Your task to perform on an android device: clear history in the chrome app Image 0: 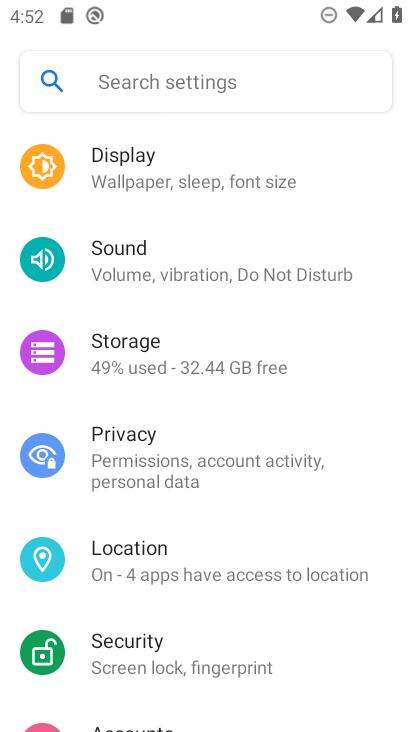
Step 0: press home button
Your task to perform on an android device: clear history in the chrome app Image 1: 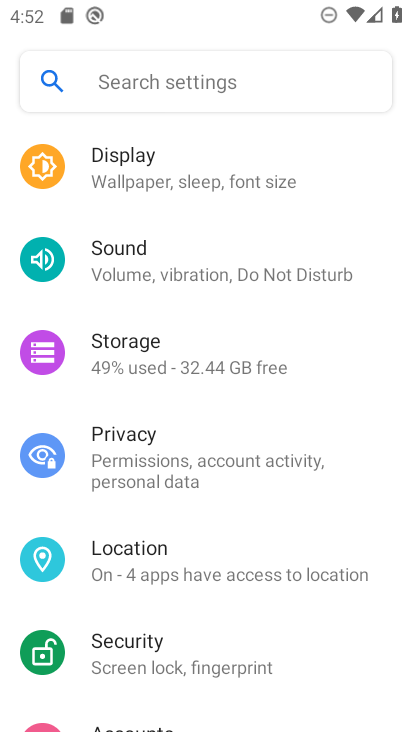
Step 1: press home button
Your task to perform on an android device: clear history in the chrome app Image 2: 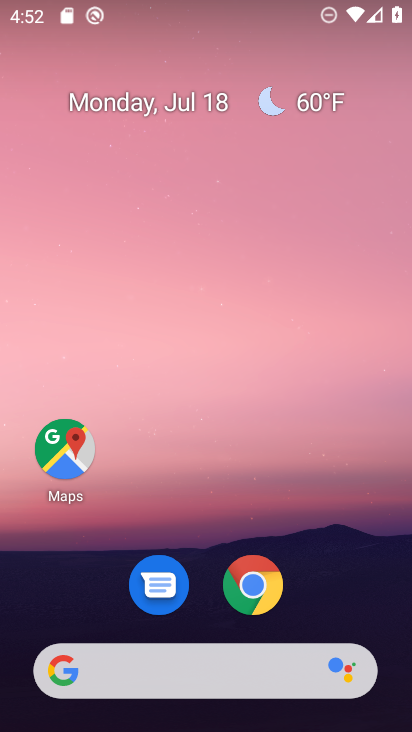
Step 2: click (257, 580)
Your task to perform on an android device: clear history in the chrome app Image 3: 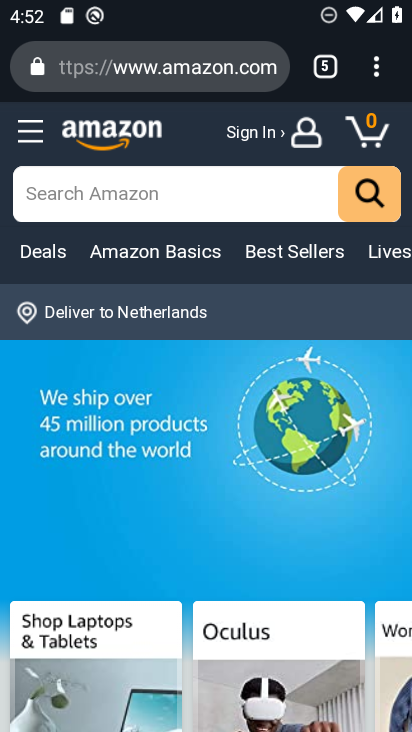
Step 3: click (382, 76)
Your task to perform on an android device: clear history in the chrome app Image 4: 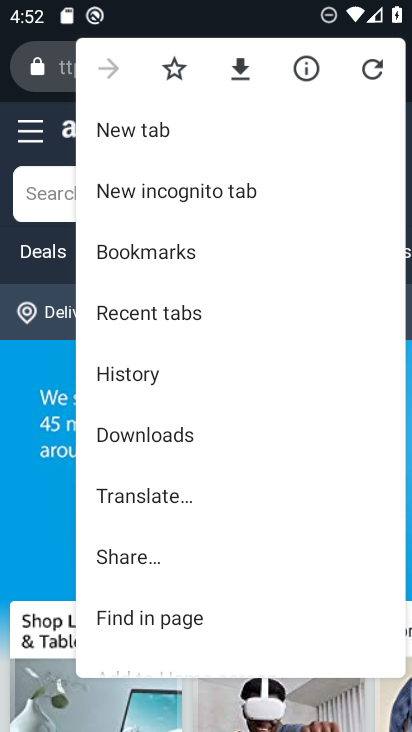
Step 4: drag from (256, 503) to (272, 157)
Your task to perform on an android device: clear history in the chrome app Image 5: 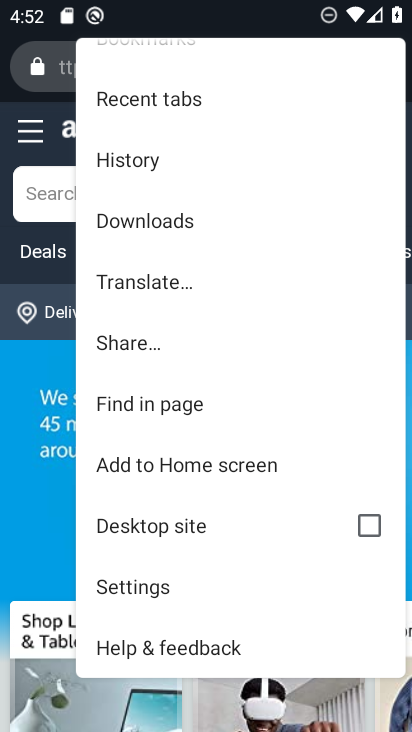
Step 5: click (139, 579)
Your task to perform on an android device: clear history in the chrome app Image 6: 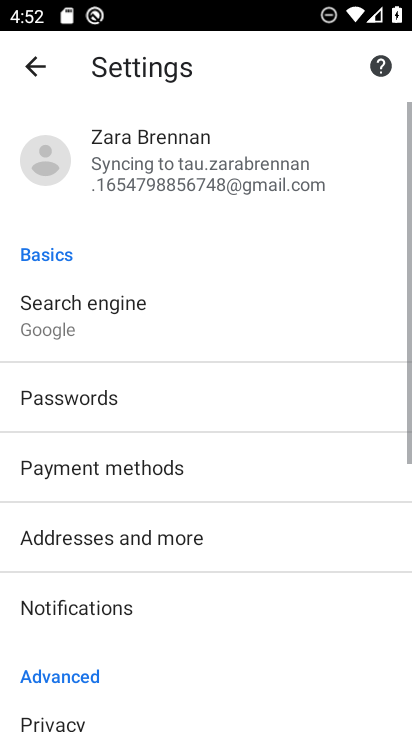
Step 6: drag from (256, 587) to (270, 294)
Your task to perform on an android device: clear history in the chrome app Image 7: 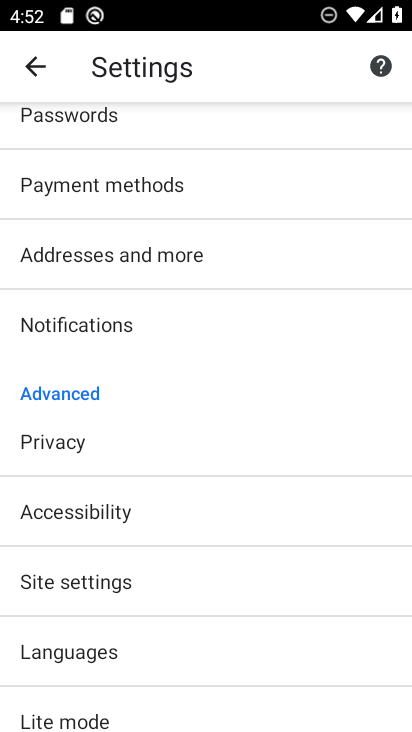
Step 7: click (91, 449)
Your task to perform on an android device: clear history in the chrome app Image 8: 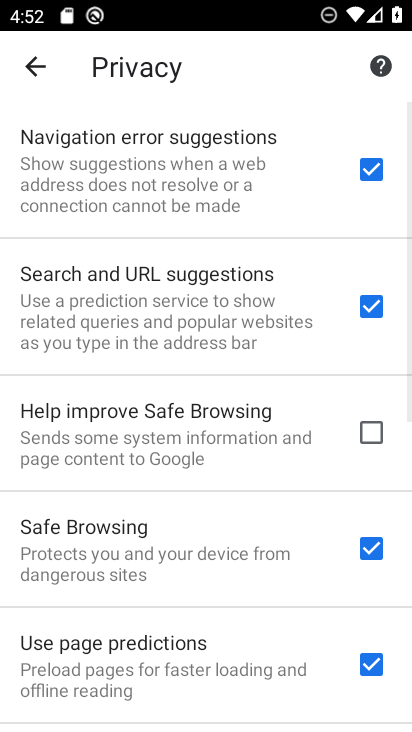
Step 8: drag from (211, 592) to (246, 148)
Your task to perform on an android device: clear history in the chrome app Image 9: 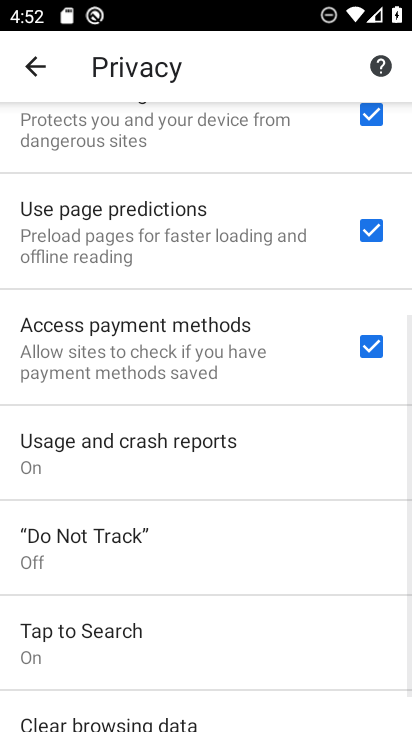
Step 9: drag from (257, 543) to (275, 183)
Your task to perform on an android device: clear history in the chrome app Image 10: 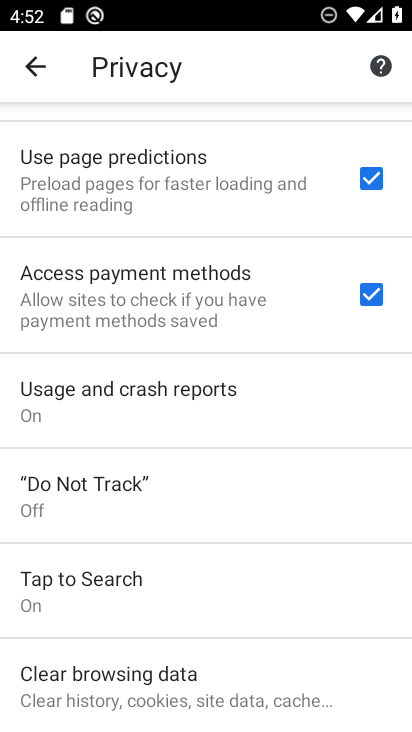
Step 10: click (130, 684)
Your task to perform on an android device: clear history in the chrome app Image 11: 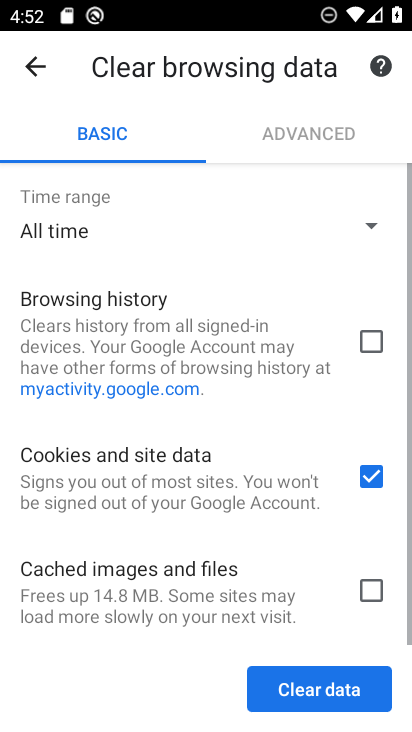
Step 11: click (371, 341)
Your task to perform on an android device: clear history in the chrome app Image 12: 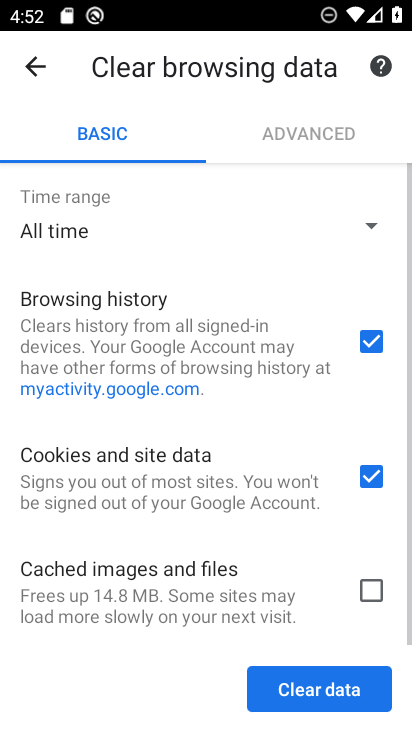
Step 12: click (367, 587)
Your task to perform on an android device: clear history in the chrome app Image 13: 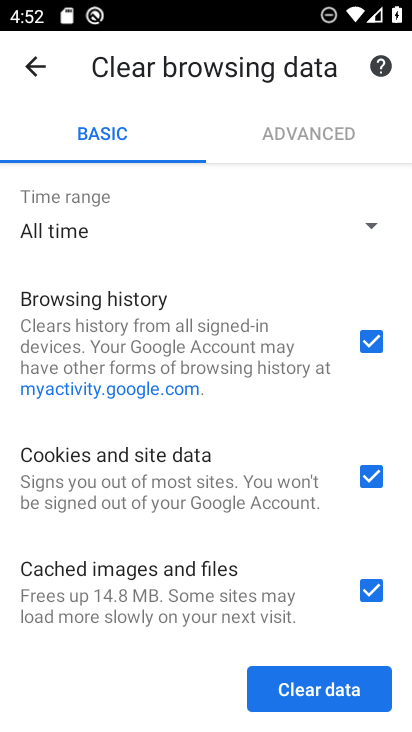
Step 13: click (379, 683)
Your task to perform on an android device: clear history in the chrome app Image 14: 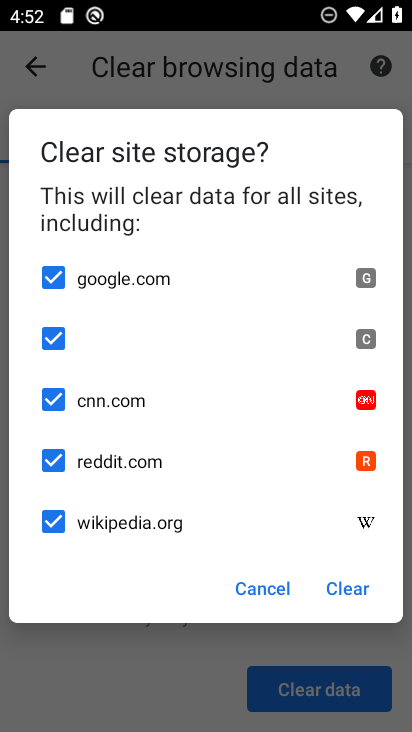
Step 14: click (350, 580)
Your task to perform on an android device: clear history in the chrome app Image 15: 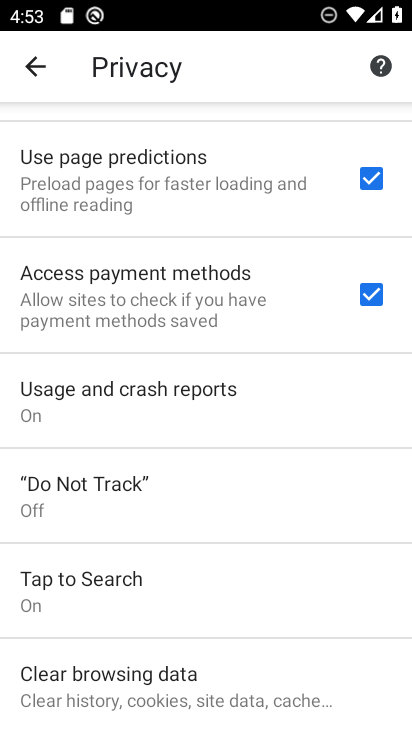
Step 15: task complete